Your task to perform on an android device: empty trash in the gmail app Image 0: 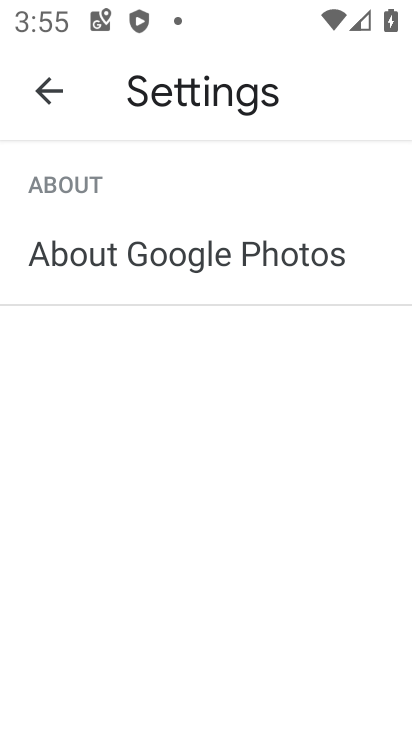
Step 0: press home button
Your task to perform on an android device: empty trash in the gmail app Image 1: 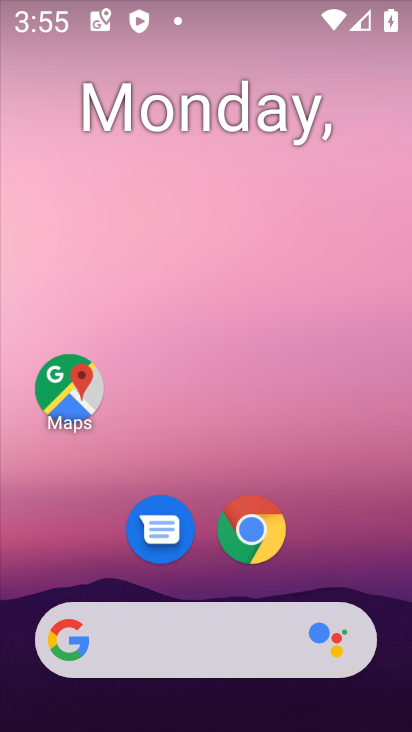
Step 1: drag from (194, 723) to (244, 18)
Your task to perform on an android device: empty trash in the gmail app Image 2: 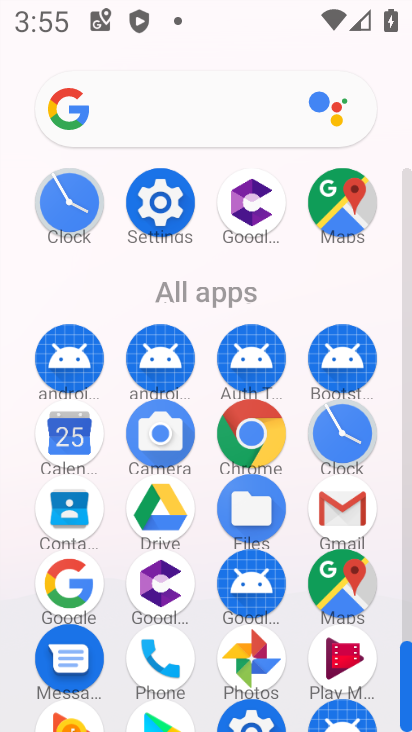
Step 2: click (343, 502)
Your task to perform on an android device: empty trash in the gmail app Image 3: 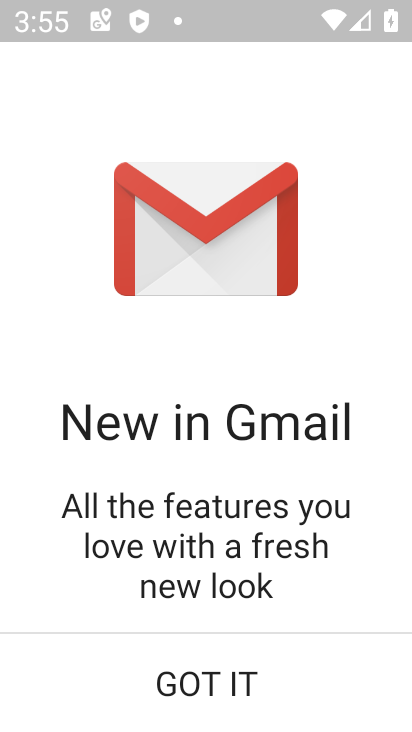
Step 3: click (194, 668)
Your task to perform on an android device: empty trash in the gmail app Image 4: 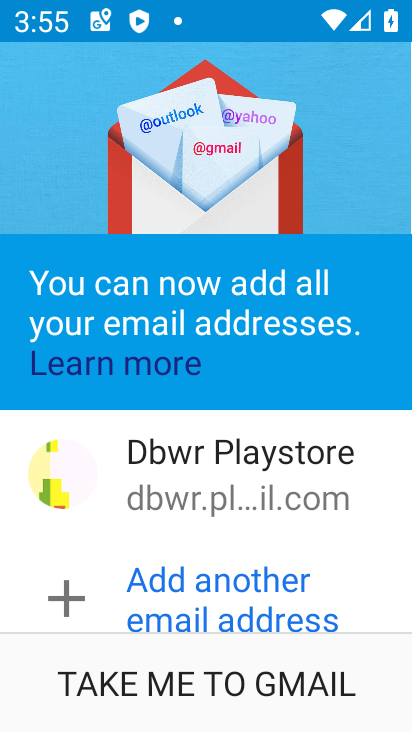
Step 4: click (193, 682)
Your task to perform on an android device: empty trash in the gmail app Image 5: 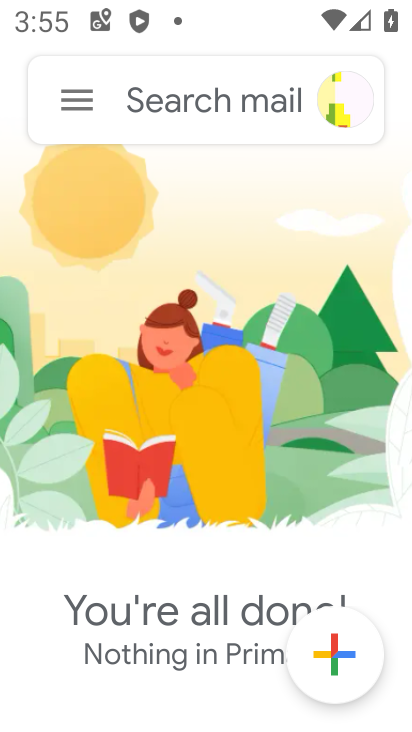
Step 5: click (86, 92)
Your task to perform on an android device: empty trash in the gmail app Image 6: 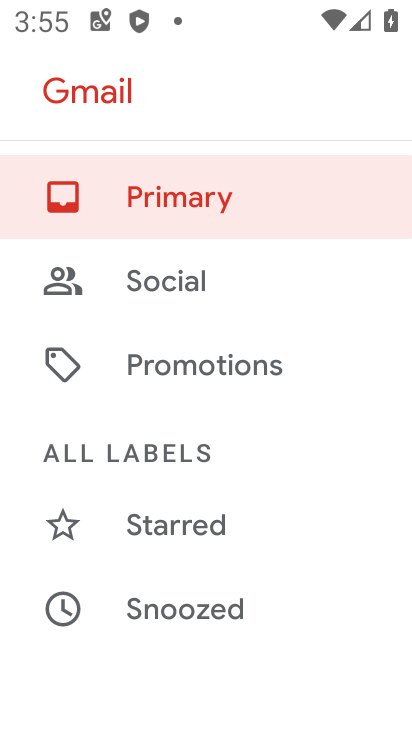
Step 6: drag from (199, 628) to (205, 196)
Your task to perform on an android device: empty trash in the gmail app Image 7: 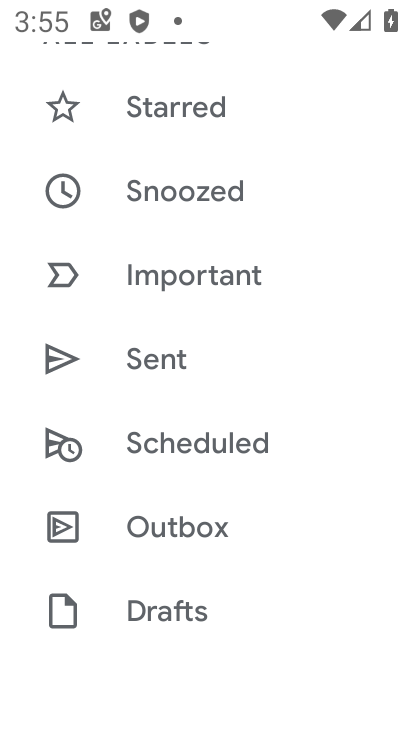
Step 7: drag from (172, 631) to (170, 272)
Your task to perform on an android device: empty trash in the gmail app Image 8: 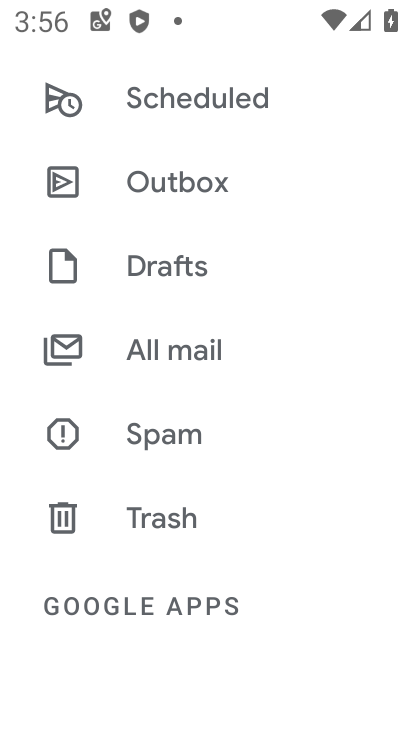
Step 8: click (170, 521)
Your task to perform on an android device: empty trash in the gmail app Image 9: 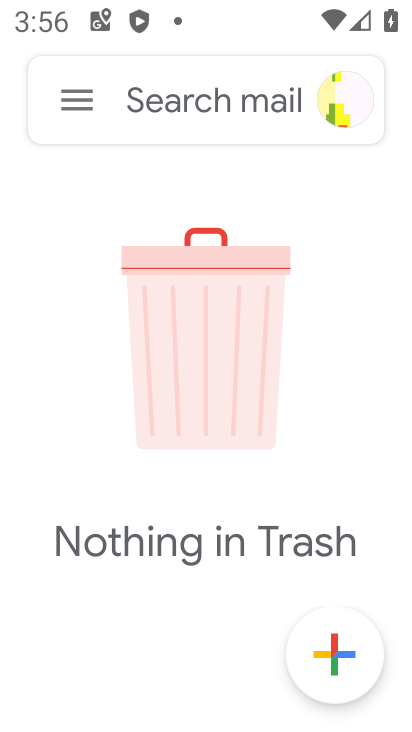
Step 9: task complete